Your task to perform on an android device: turn notification dots off Image 0: 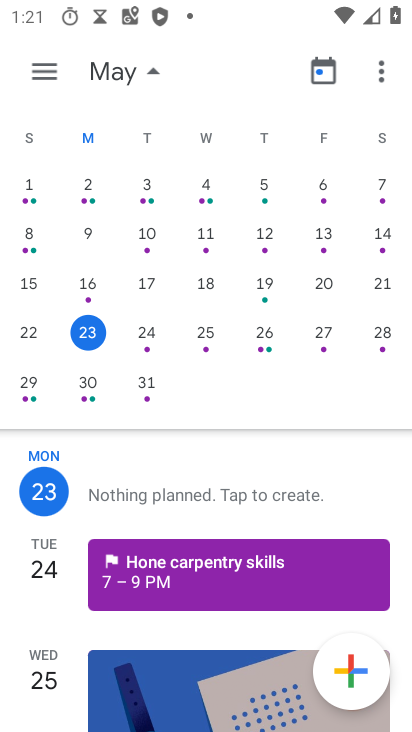
Step 0: press home button
Your task to perform on an android device: turn notification dots off Image 1: 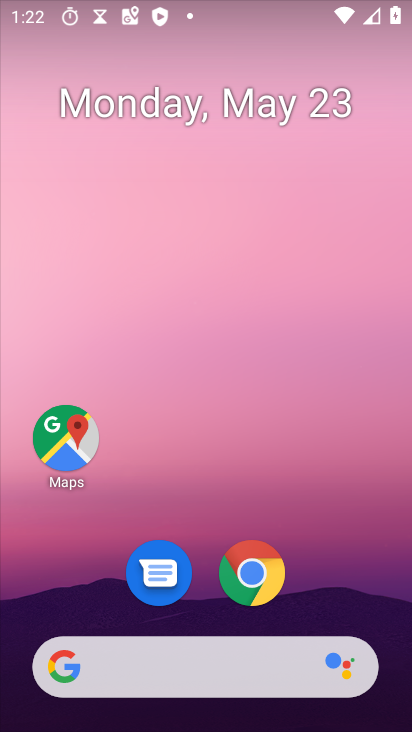
Step 1: drag from (141, 679) to (284, 161)
Your task to perform on an android device: turn notification dots off Image 2: 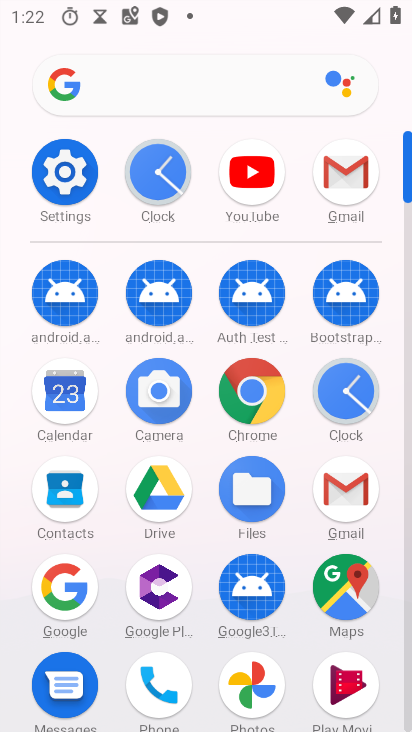
Step 2: click (83, 172)
Your task to perform on an android device: turn notification dots off Image 3: 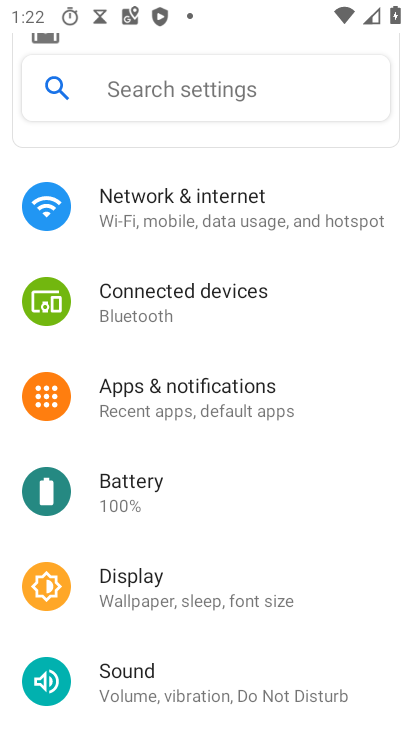
Step 3: click (159, 393)
Your task to perform on an android device: turn notification dots off Image 4: 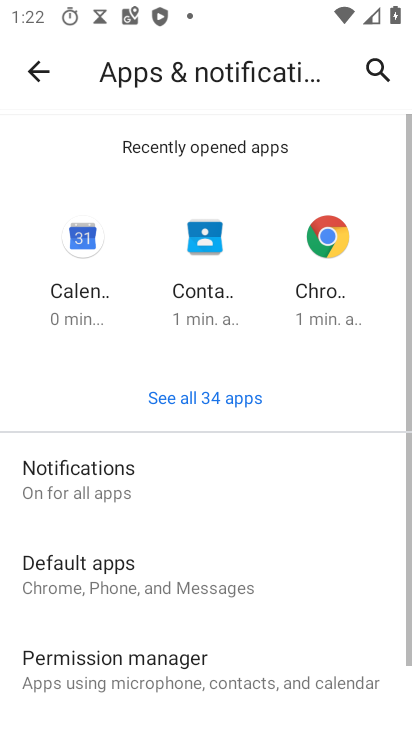
Step 4: click (124, 486)
Your task to perform on an android device: turn notification dots off Image 5: 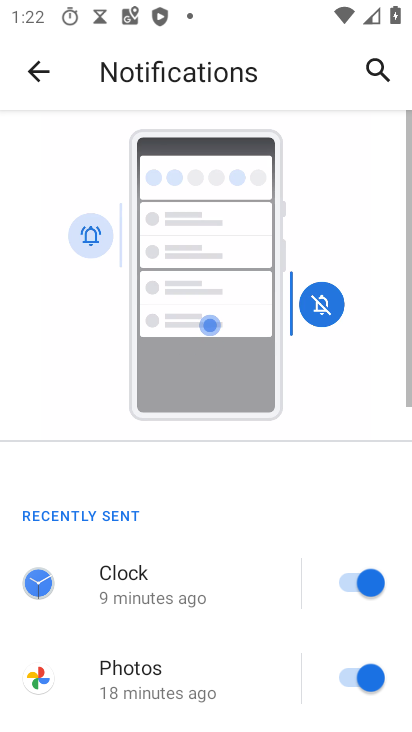
Step 5: drag from (201, 617) to (356, 59)
Your task to perform on an android device: turn notification dots off Image 6: 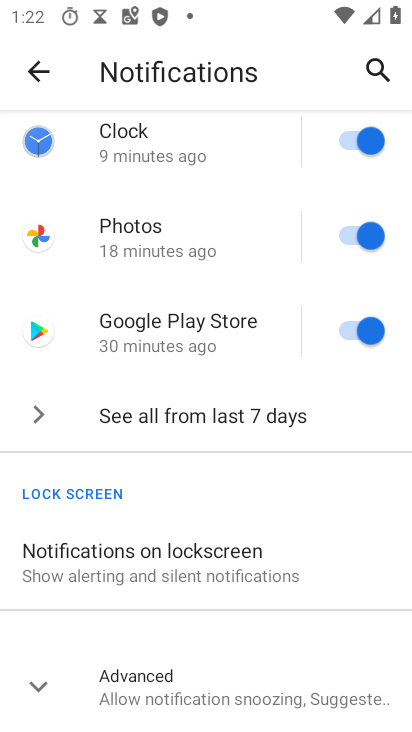
Step 6: click (146, 676)
Your task to perform on an android device: turn notification dots off Image 7: 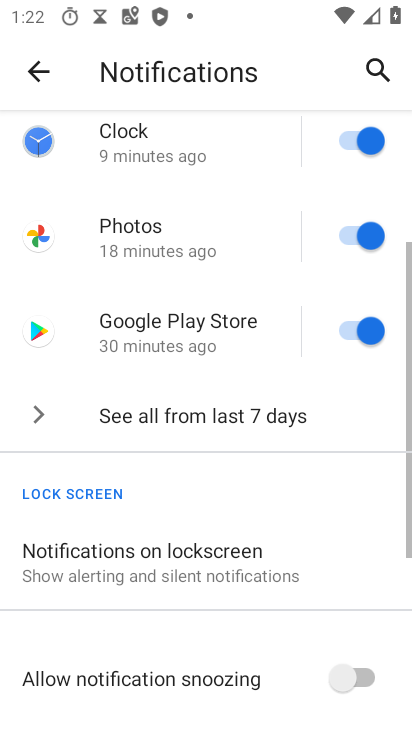
Step 7: drag from (175, 644) to (332, 107)
Your task to perform on an android device: turn notification dots off Image 8: 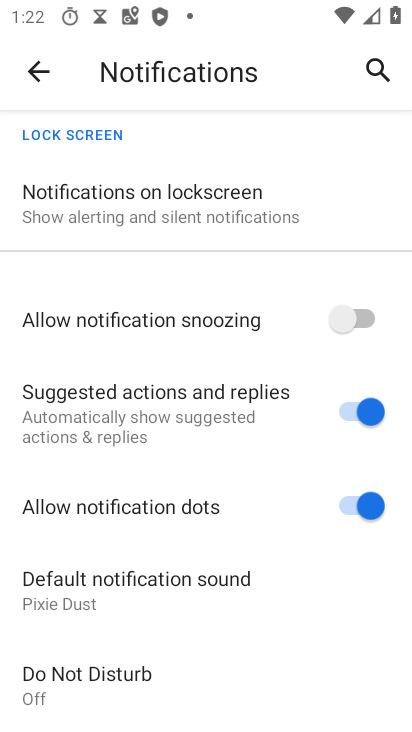
Step 8: click (350, 507)
Your task to perform on an android device: turn notification dots off Image 9: 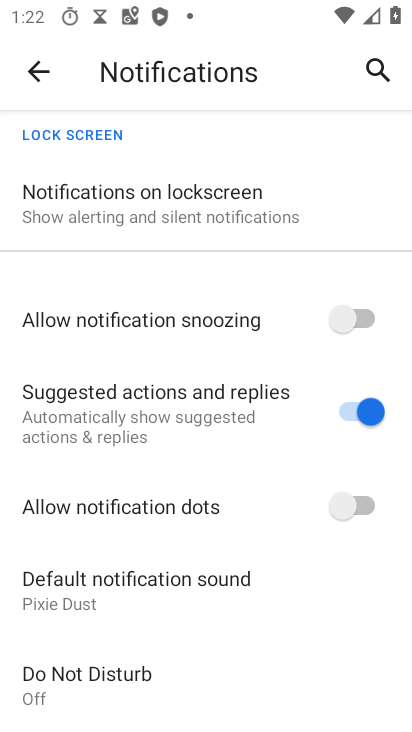
Step 9: task complete